Your task to perform on an android device: Set the phone to "Do not disturb". Image 0: 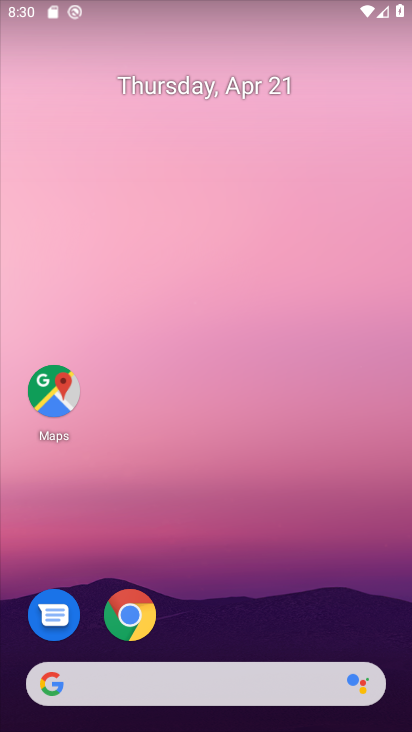
Step 0: drag from (255, 580) to (188, 32)
Your task to perform on an android device: Set the phone to "Do not disturb". Image 1: 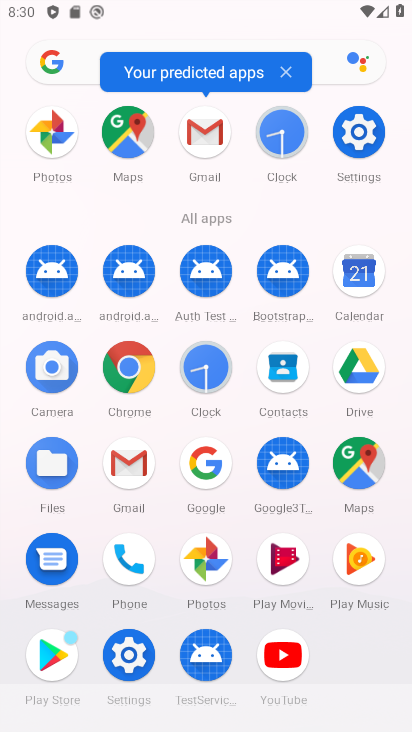
Step 1: click (349, 130)
Your task to perform on an android device: Set the phone to "Do not disturb". Image 2: 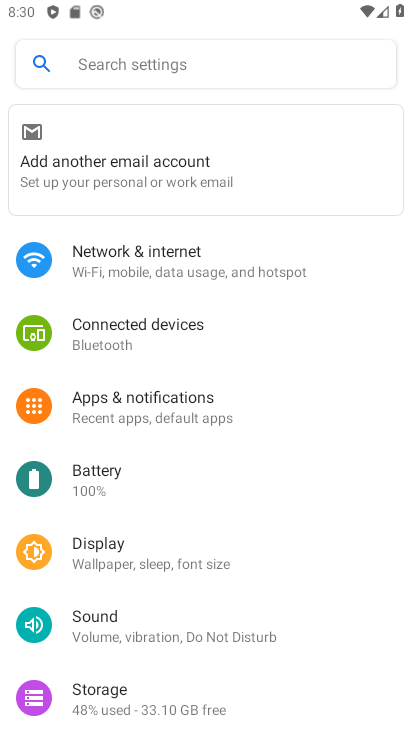
Step 2: drag from (234, 606) to (209, 286)
Your task to perform on an android device: Set the phone to "Do not disturb". Image 3: 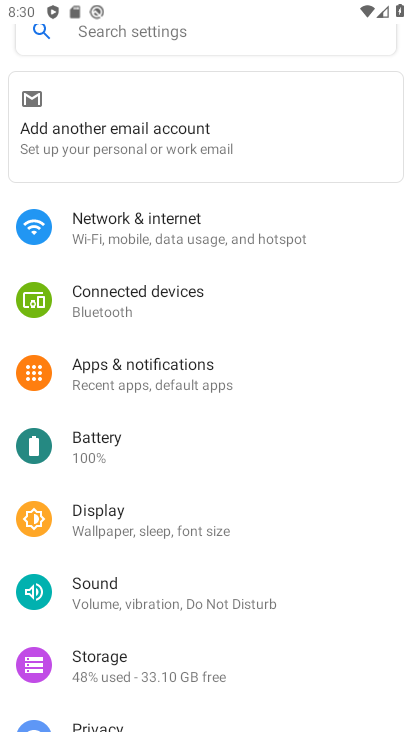
Step 3: drag from (203, 587) to (199, 301)
Your task to perform on an android device: Set the phone to "Do not disturb". Image 4: 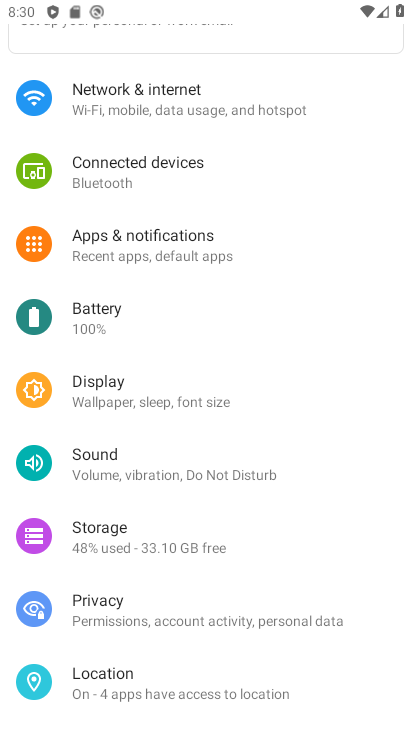
Step 4: click (141, 465)
Your task to perform on an android device: Set the phone to "Do not disturb". Image 5: 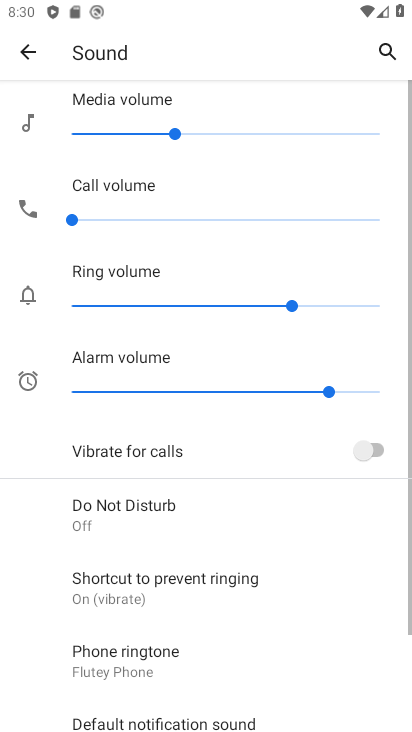
Step 5: drag from (128, 600) to (117, 484)
Your task to perform on an android device: Set the phone to "Do not disturb". Image 6: 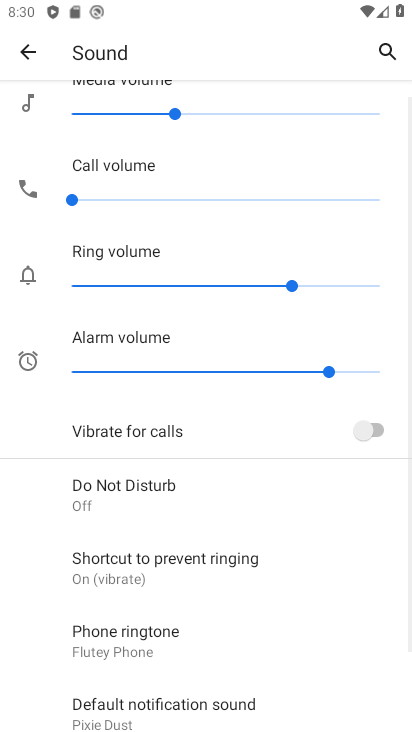
Step 6: click (117, 498)
Your task to perform on an android device: Set the phone to "Do not disturb". Image 7: 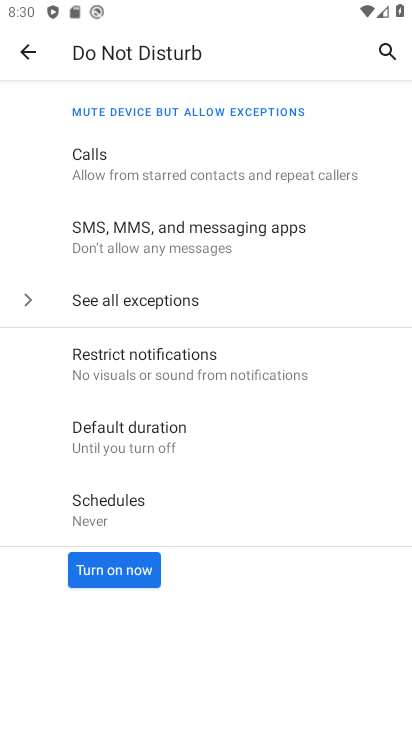
Step 7: click (111, 570)
Your task to perform on an android device: Set the phone to "Do not disturb". Image 8: 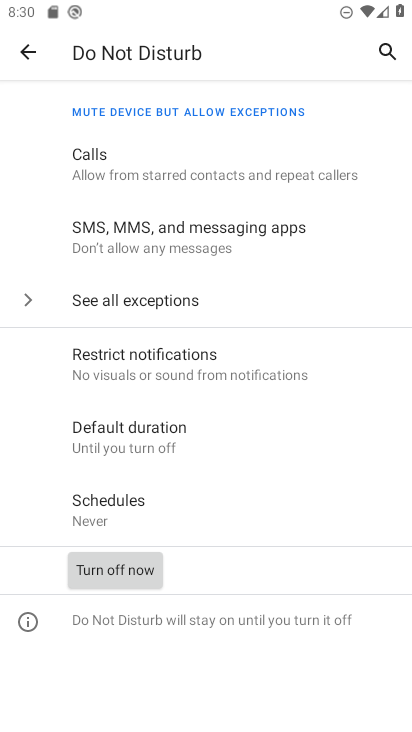
Step 8: task complete